Your task to perform on an android device: open chrome and create a bookmark for the current page Image 0: 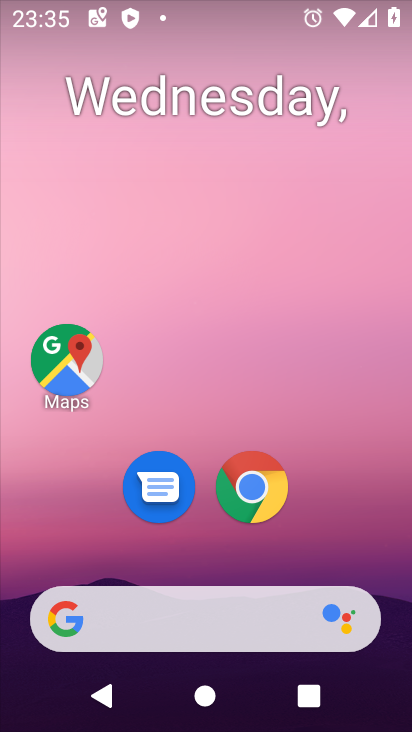
Step 0: click (258, 495)
Your task to perform on an android device: open chrome and create a bookmark for the current page Image 1: 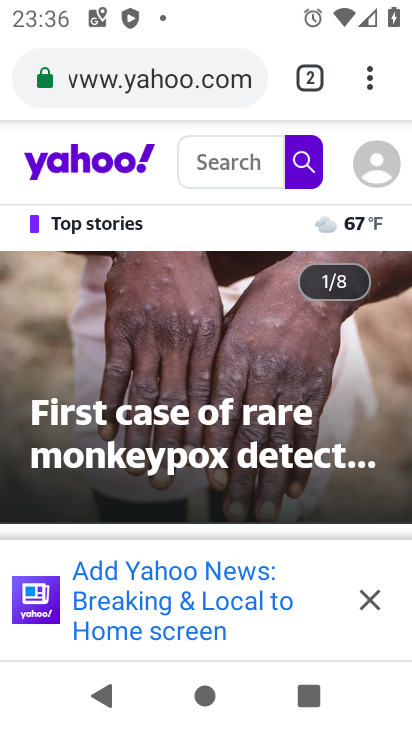
Step 1: click (370, 79)
Your task to perform on an android device: open chrome and create a bookmark for the current page Image 2: 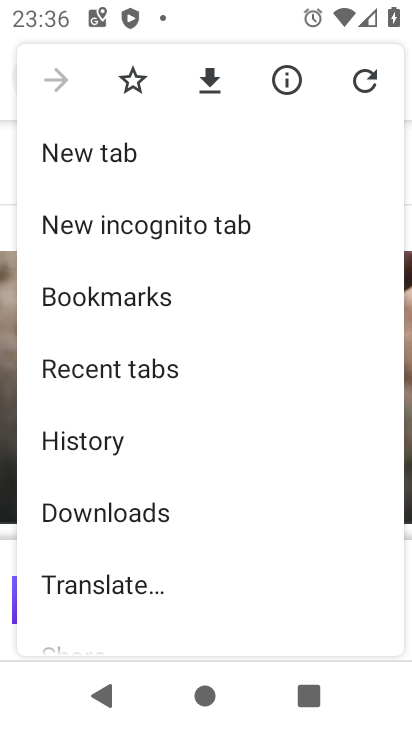
Step 2: click (136, 80)
Your task to perform on an android device: open chrome and create a bookmark for the current page Image 3: 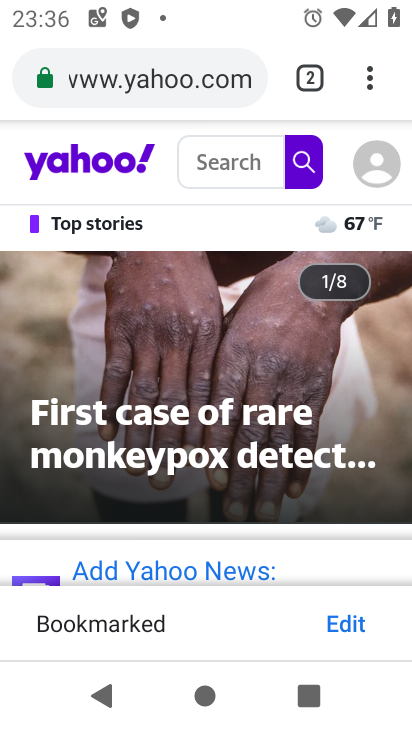
Step 3: task complete